Your task to perform on an android device: Open location settings Image 0: 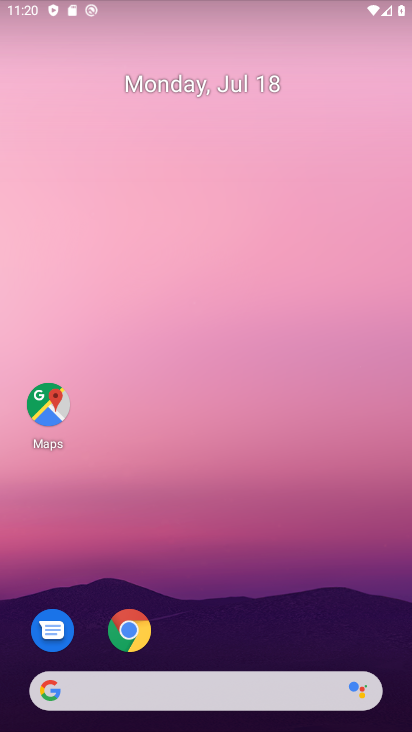
Step 0: drag from (258, 425) to (228, 172)
Your task to perform on an android device: Open location settings Image 1: 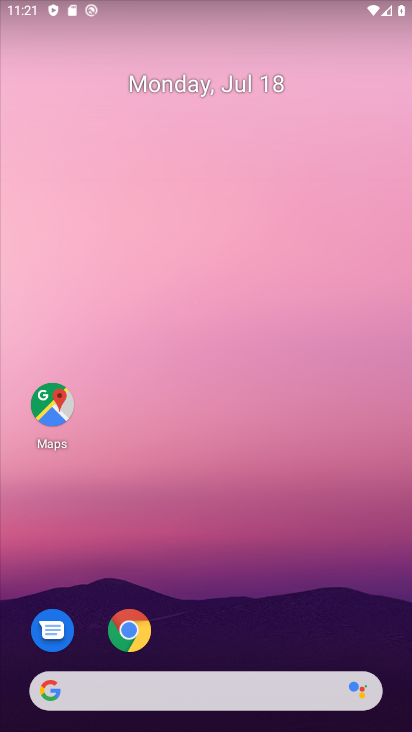
Step 1: drag from (241, 669) to (249, 246)
Your task to perform on an android device: Open location settings Image 2: 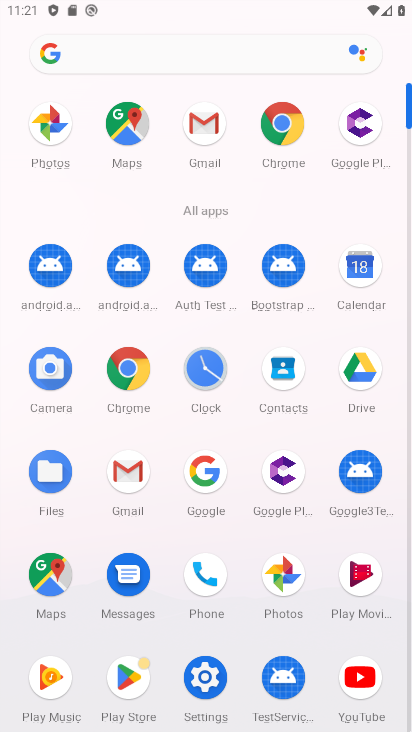
Step 2: click (217, 681)
Your task to perform on an android device: Open location settings Image 3: 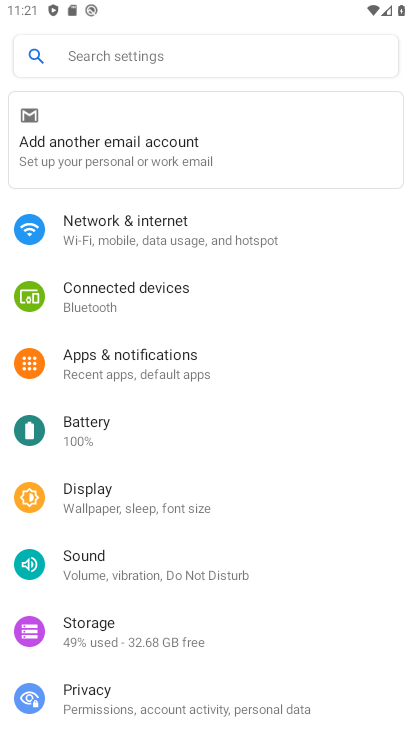
Step 3: drag from (161, 689) to (172, 549)
Your task to perform on an android device: Open location settings Image 4: 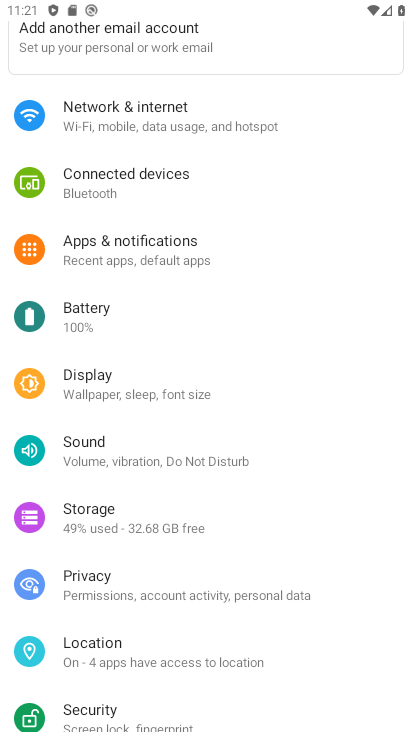
Step 4: click (127, 661)
Your task to perform on an android device: Open location settings Image 5: 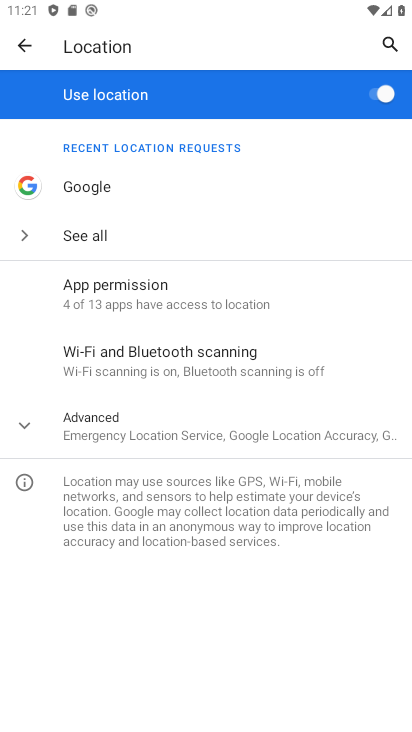
Step 5: task complete